Your task to perform on an android device: Open Maps and search for coffee Image 0: 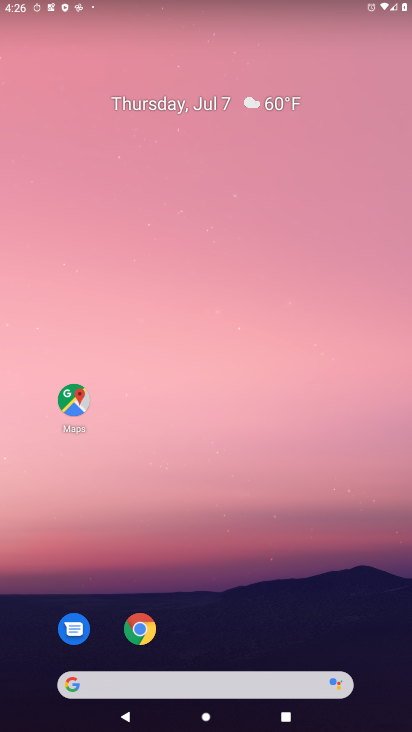
Step 0: drag from (151, 104) to (102, 2)
Your task to perform on an android device: Open Maps and search for coffee Image 1: 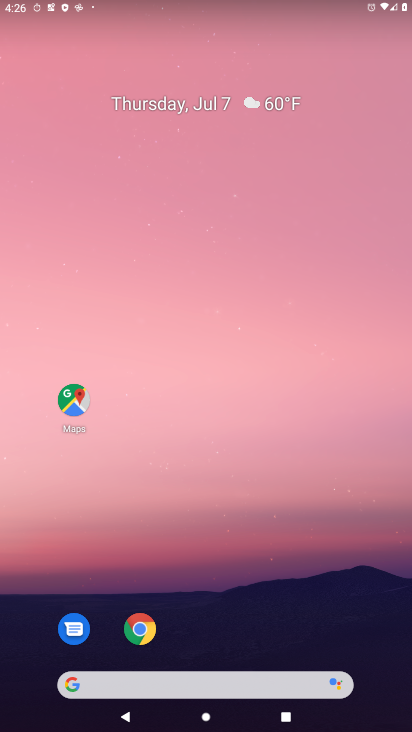
Step 1: click (142, 450)
Your task to perform on an android device: Open Maps and search for coffee Image 2: 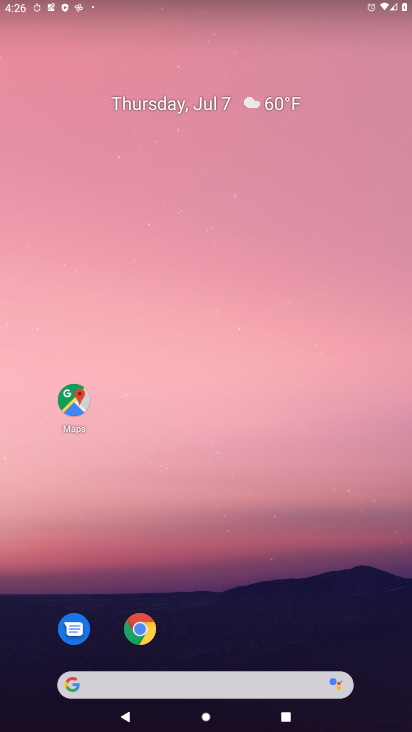
Step 2: drag from (187, 628) to (182, 93)
Your task to perform on an android device: Open Maps and search for coffee Image 3: 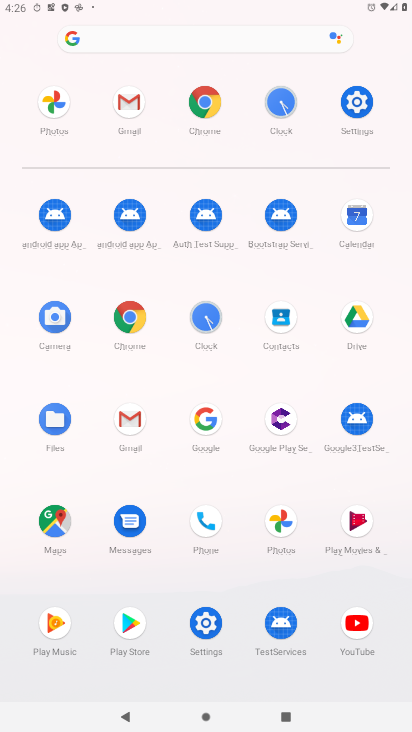
Step 3: click (49, 544)
Your task to perform on an android device: Open Maps and search for coffee Image 4: 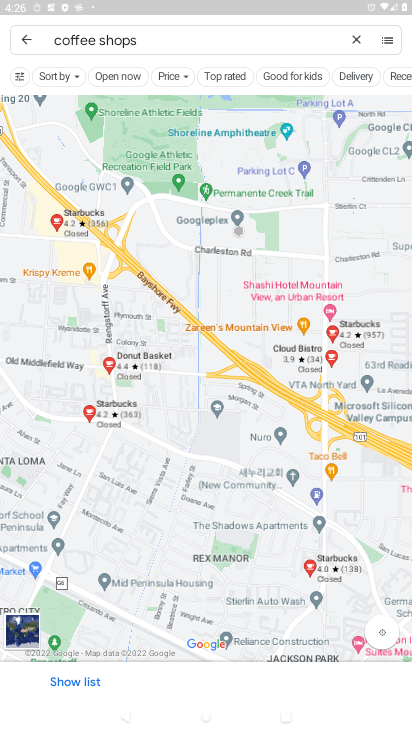
Step 4: click (24, 41)
Your task to perform on an android device: Open Maps and search for coffee Image 5: 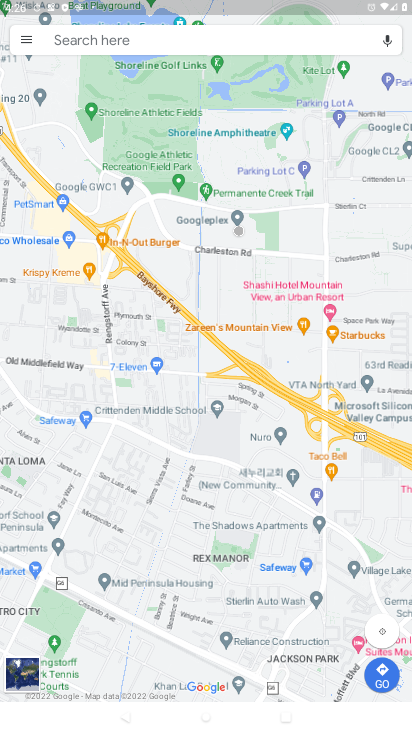
Step 5: click (144, 41)
Your task to perform on an android device: Open Maps and search for coffee Image 6: 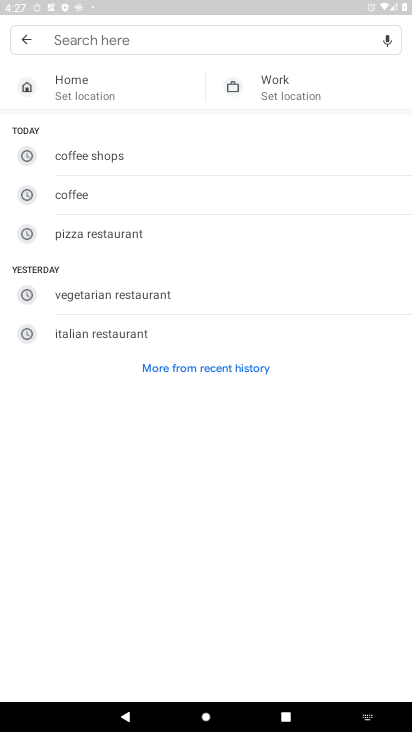
Step 6: click (55, 197)
Your task to perform on an android device: Open Maps and search for coffee Image 7: 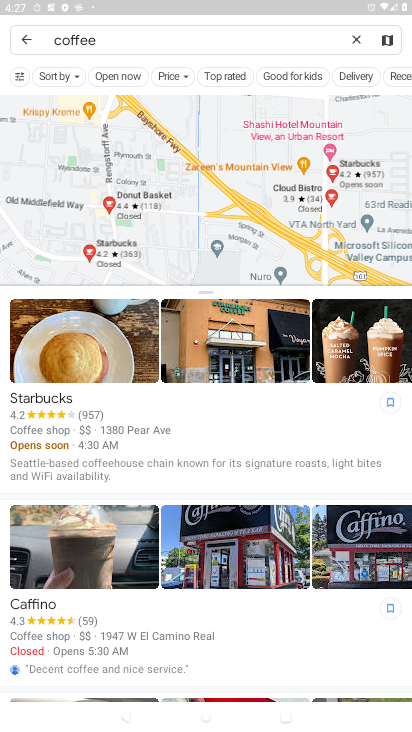
Step 7: task complete